Your task to perform on an android device: What is the news today? Image 0: 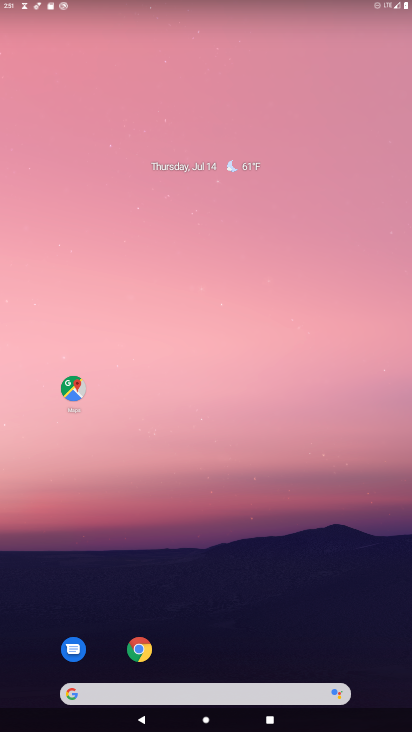
Step 0: drag from (285, 655) to (337, 25)
Your task to perform on an android device: What is the news today? Image 1: 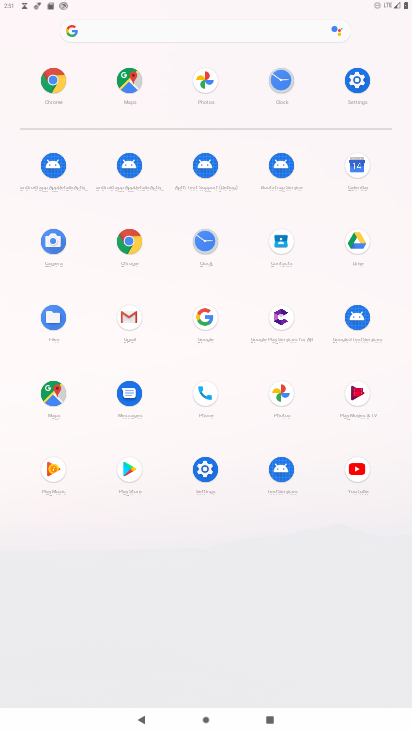
Step 1: click (137, 239)
Your task to perform on an android device: What is the news today? Image 2: 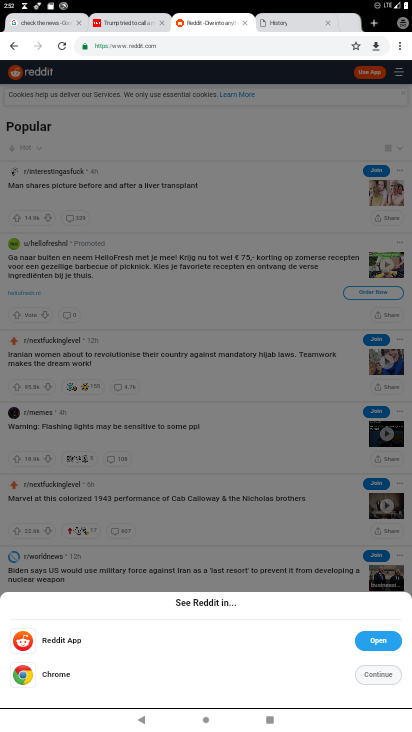
Step 2: click (236, 46)
Your task to perform on an android device: What is the news today? Image 3: 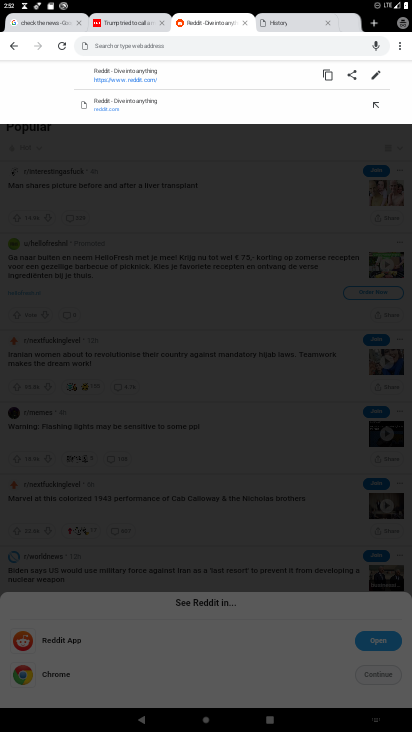
Step 3: type "news today"
Your task to perform on an android device: What is the news today? Image 4: 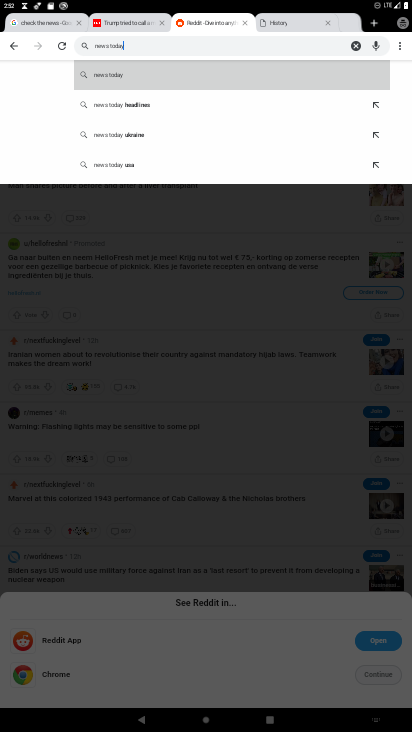
Step 4: click (233, 81)
Your task to perform on an android device: What is the news today? Image 5: 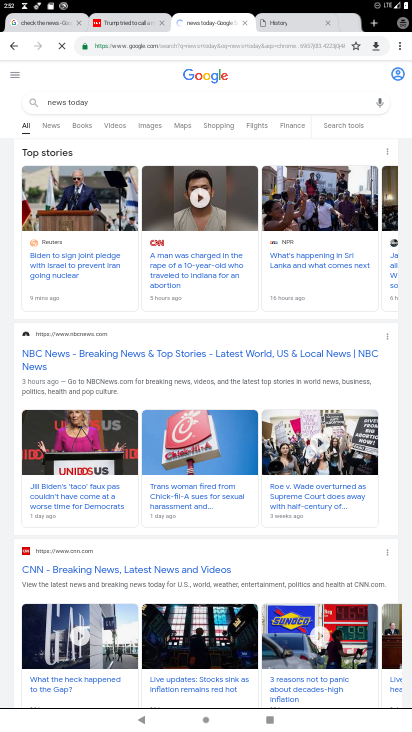
Step 5: task complete